Your task to perform on an android device: toggle sleep mode Image 0: 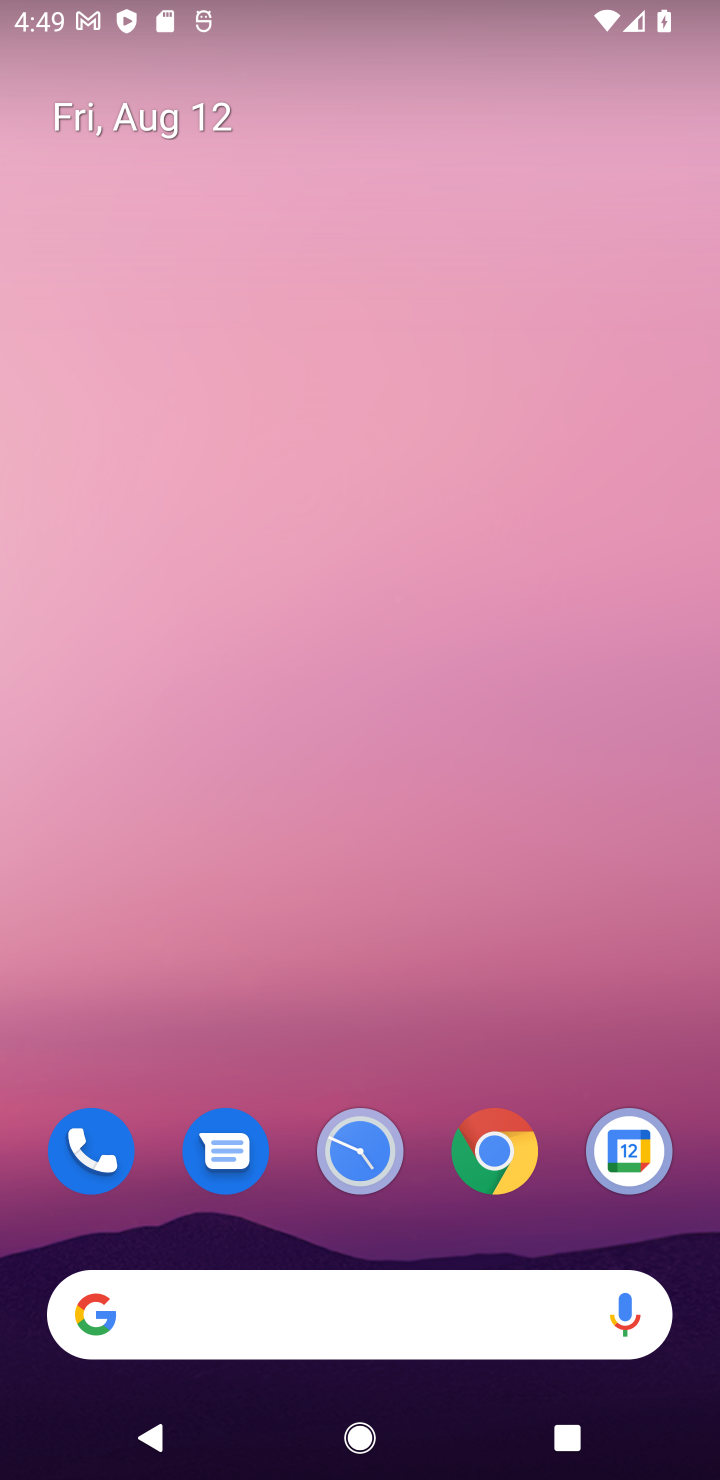
Step 0: drag from (593, 949) to (559, 0)
Your task to perform on an android device: toggle sleep mode Image 1: 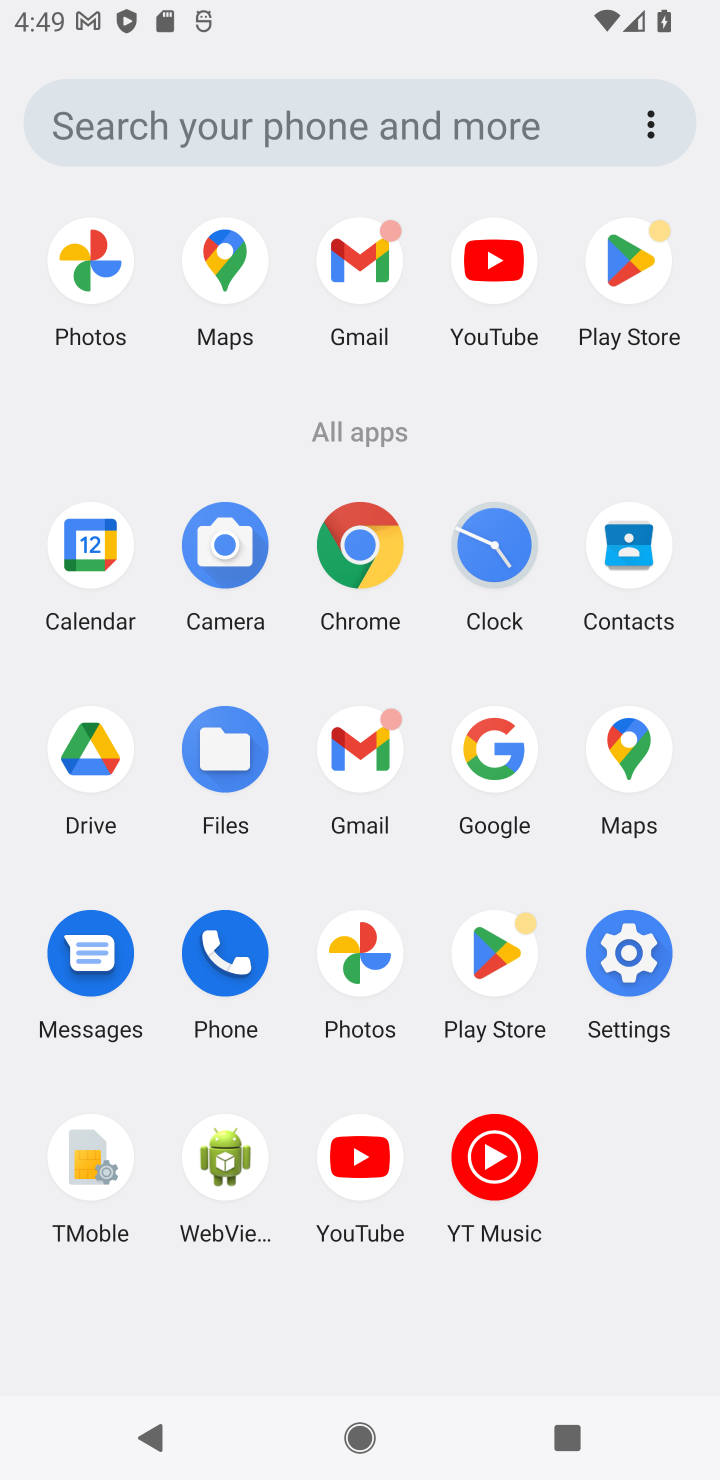
Step 1: click (637, 931)
Your task to perform on an android device: toggle sleep mode Image 2: 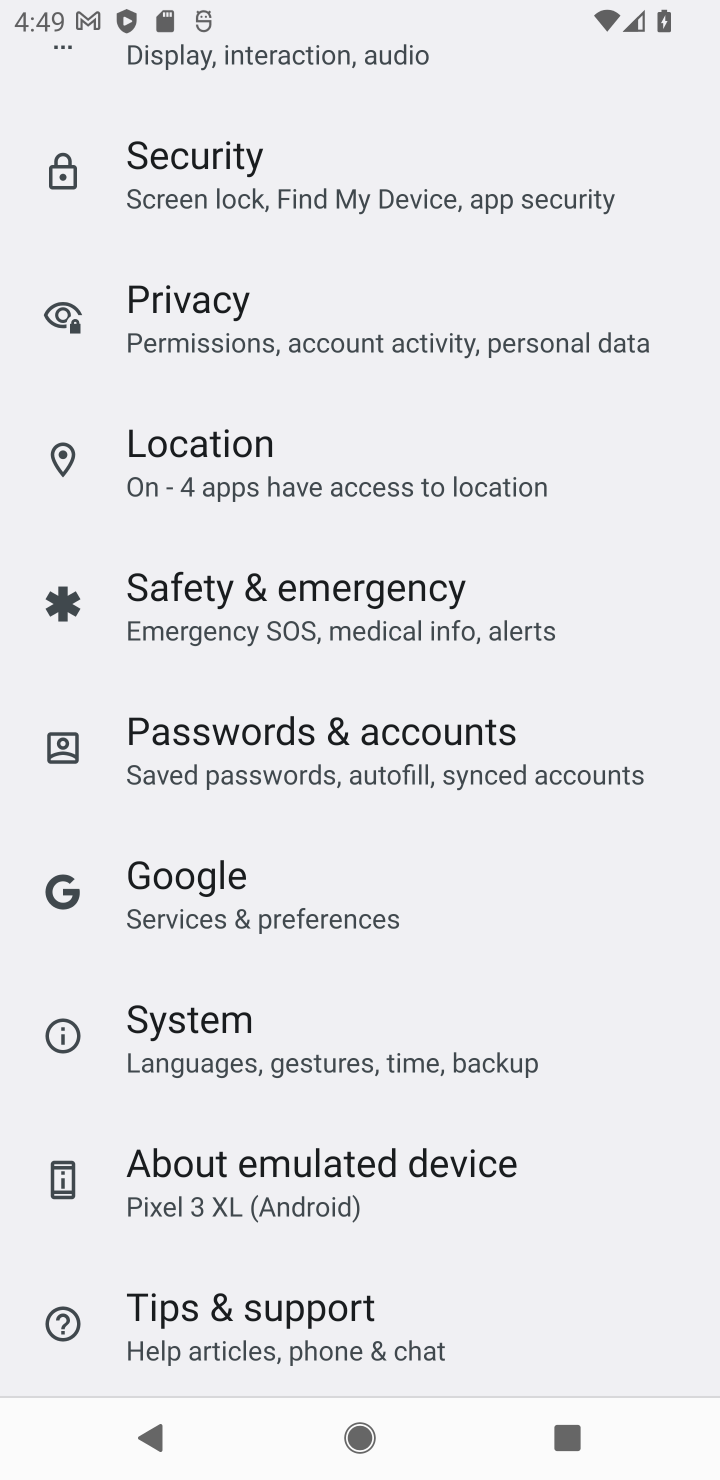
Step 2: drag from (407, 274) to (390, 1231)
Your task to perform on an android device: toggle sleep mode Image 3: 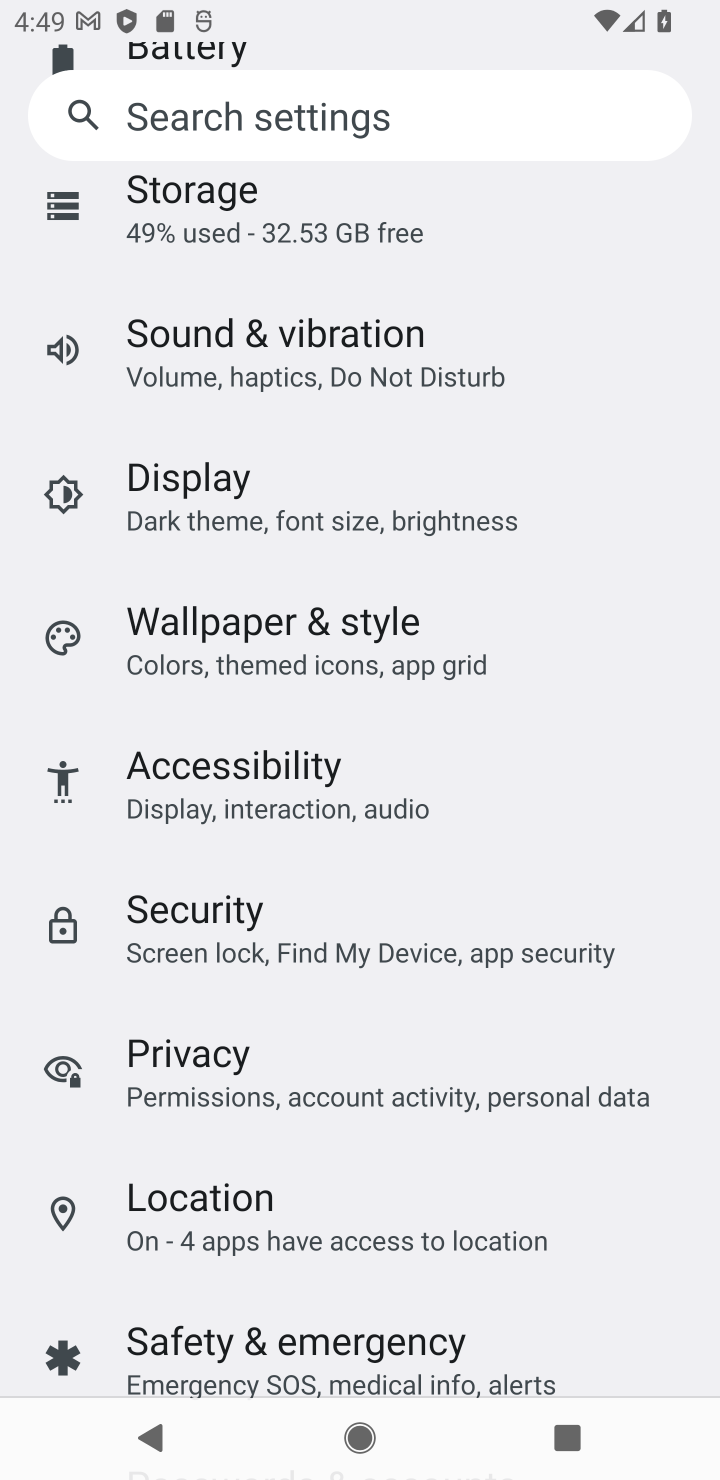
Step 3: drag from (587, 267) to (563, 753)
Your task to perform on an android device: toggle sleep mode Image 4: 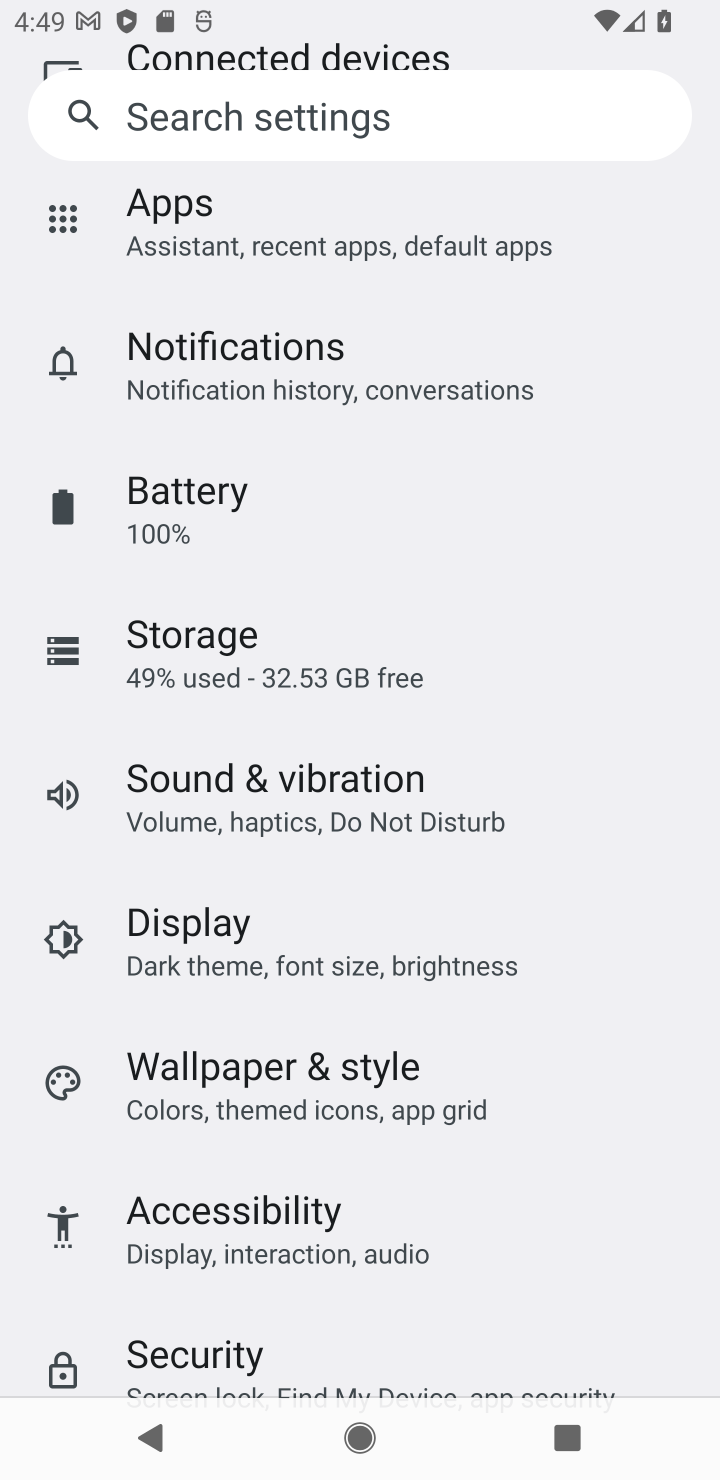
Step 4: click (244, 924)
Your task to perform on an android device: toggle sleep mode Image 5: 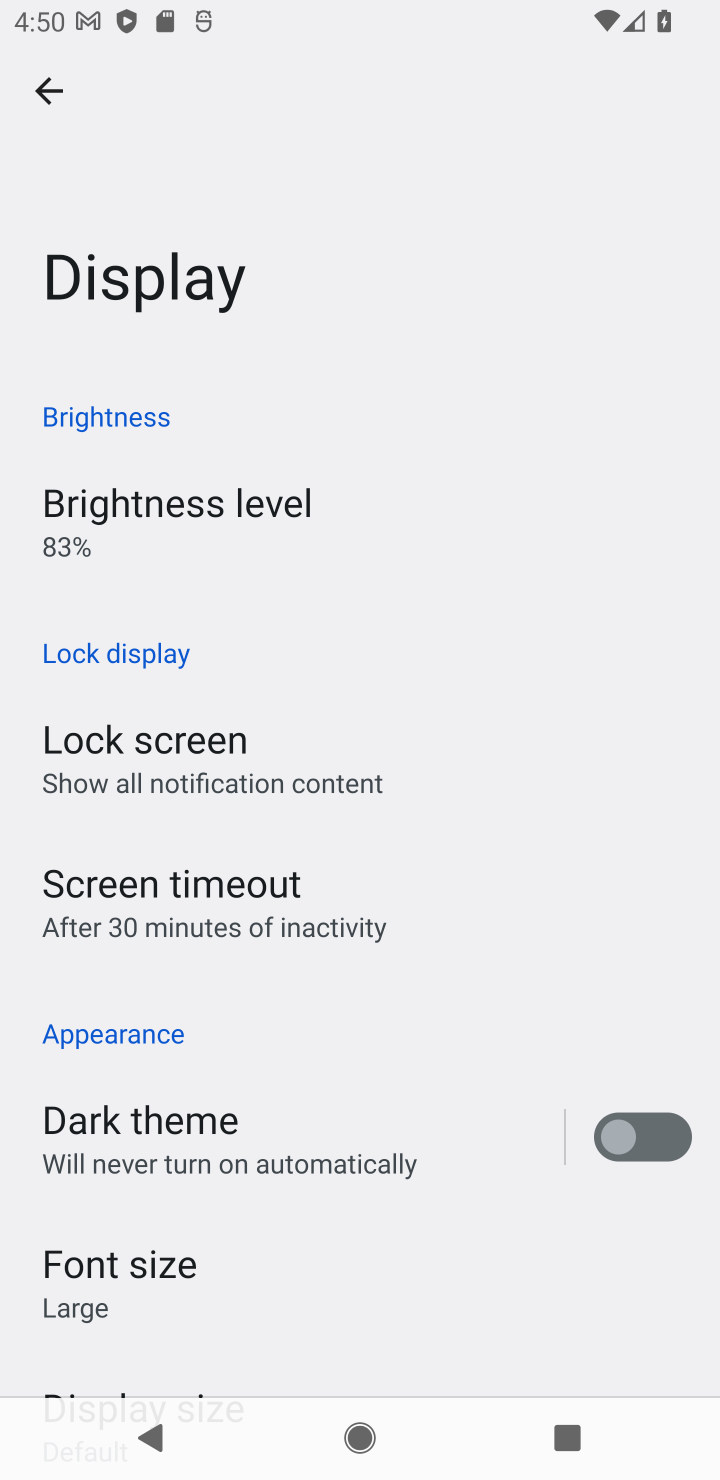
Step 5: click (316, 917)
Your task to perform on an android device: toggle sleep mode Image 6: 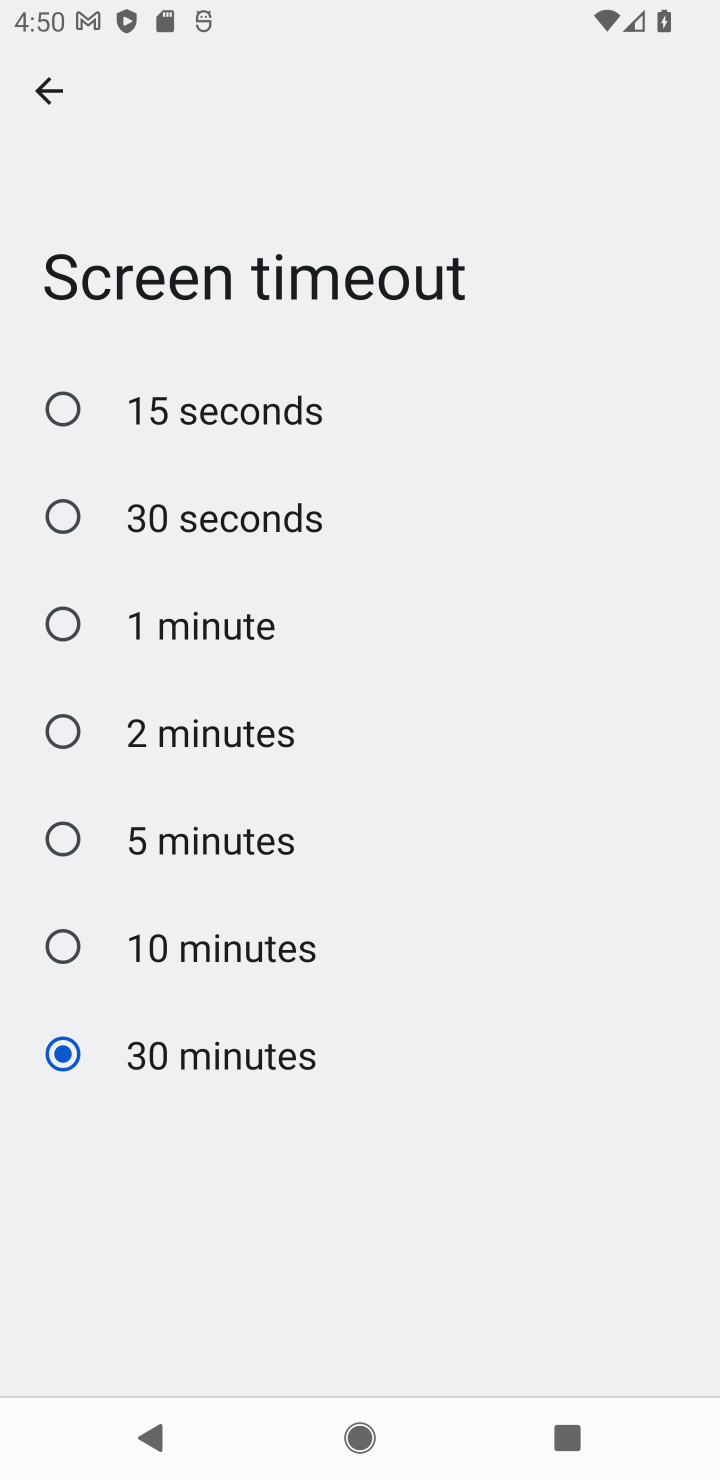
Step 6: click (225, 915)
Your task to perform on an android device: toggle sleep mode Image 7: 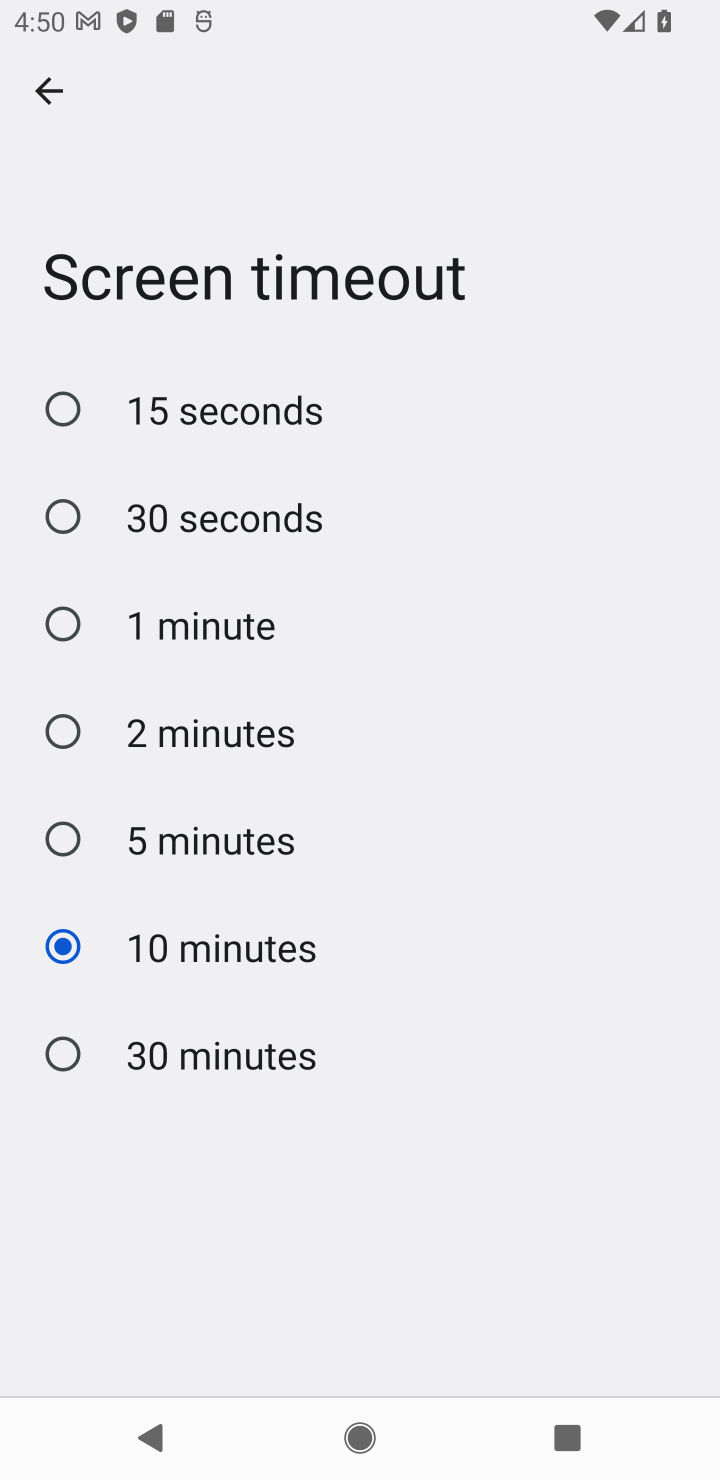
Step 7: task complete